Your task to perform on an android device: check the backup settings in the google photos Image 0: 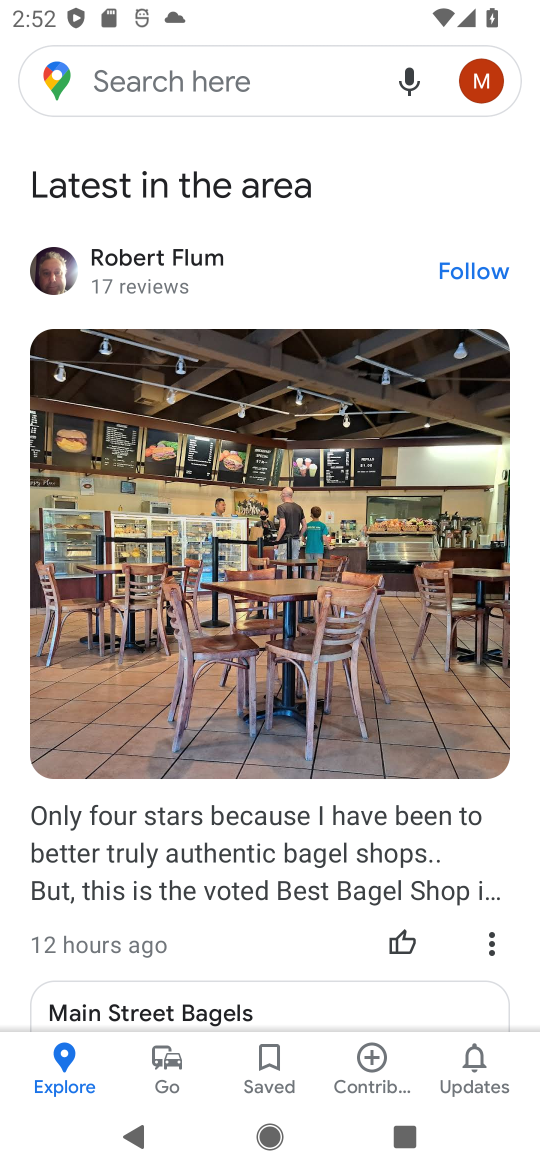
Step 0: press home button
Your task to perform on an android device: check the backup settings in the google photos Image 1: 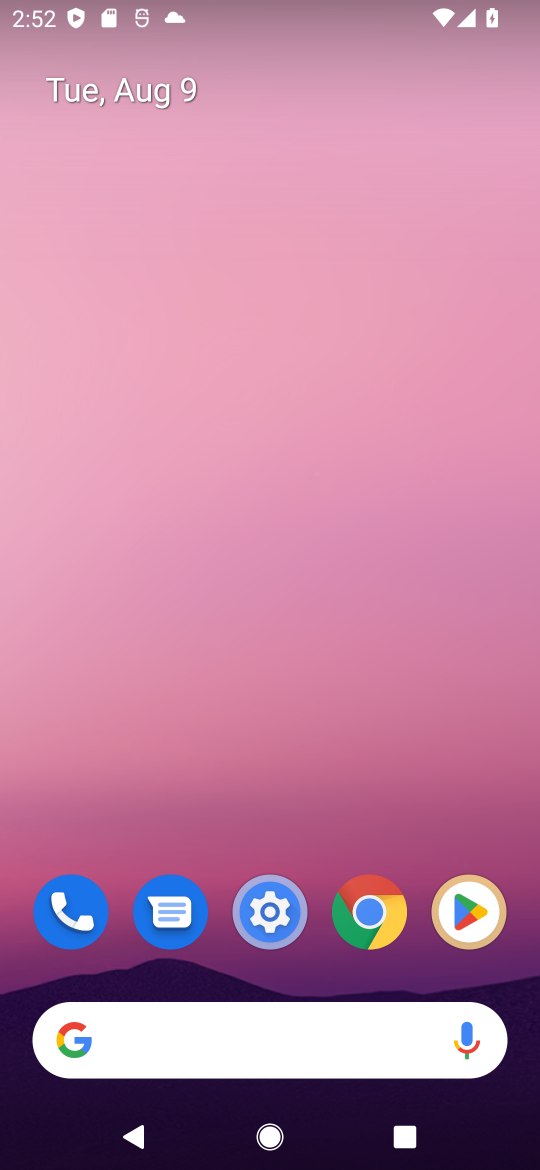
Step 1: drag from (299, 839) to (244, 219)
Your task to perform on an android device: check the backup settings in the google photos Image 2: 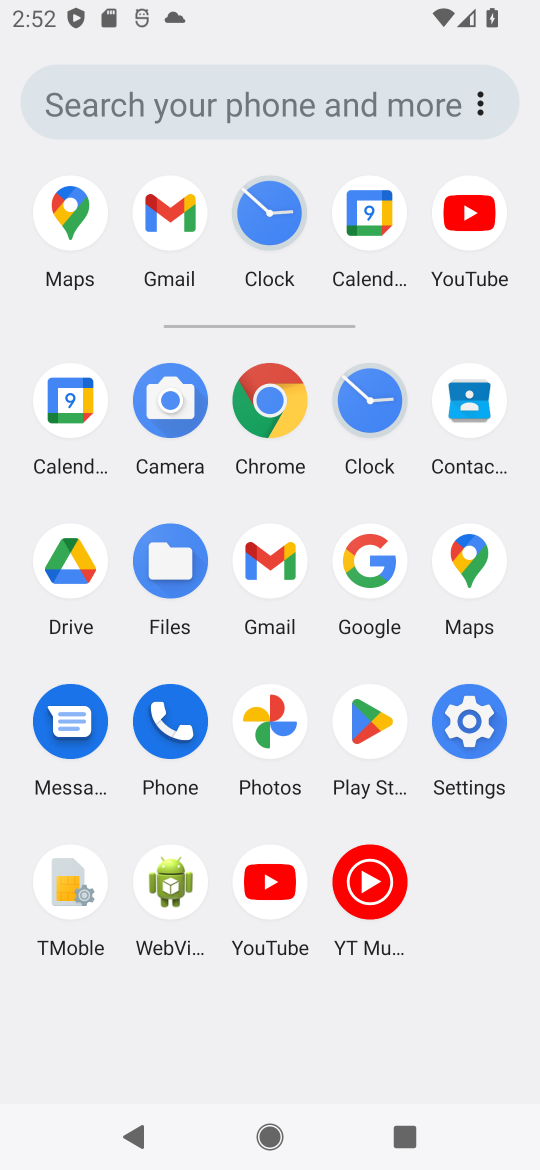
Step 2: click (273, 728)
Your task to perform on an android device: check the backup settings in the google photos Image 3: 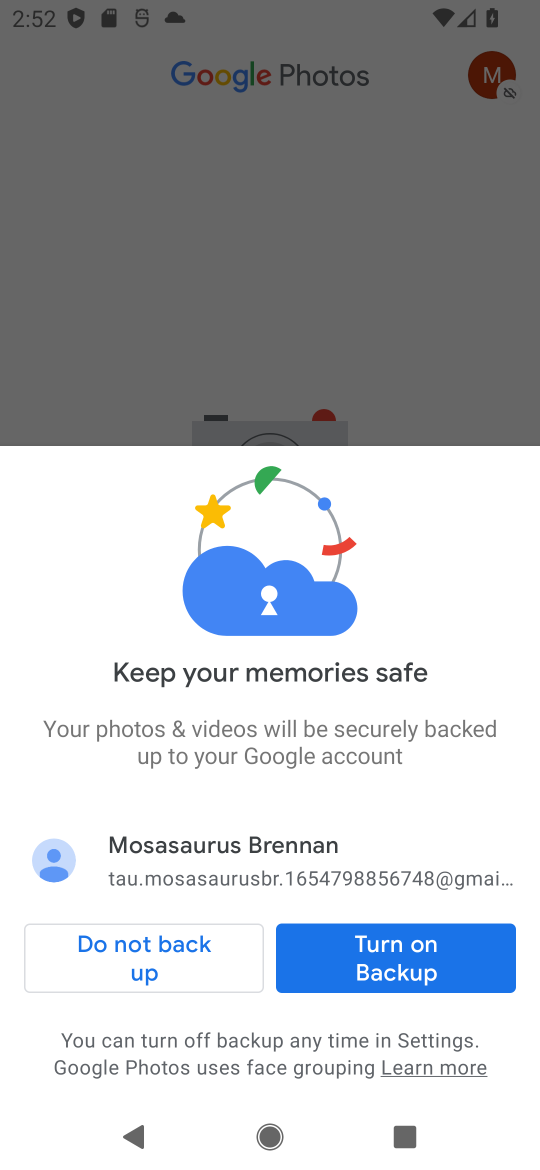
Step 3: click (360, 968)
Your task to perform on an android device: check the backup settings in the google photos Image 4: 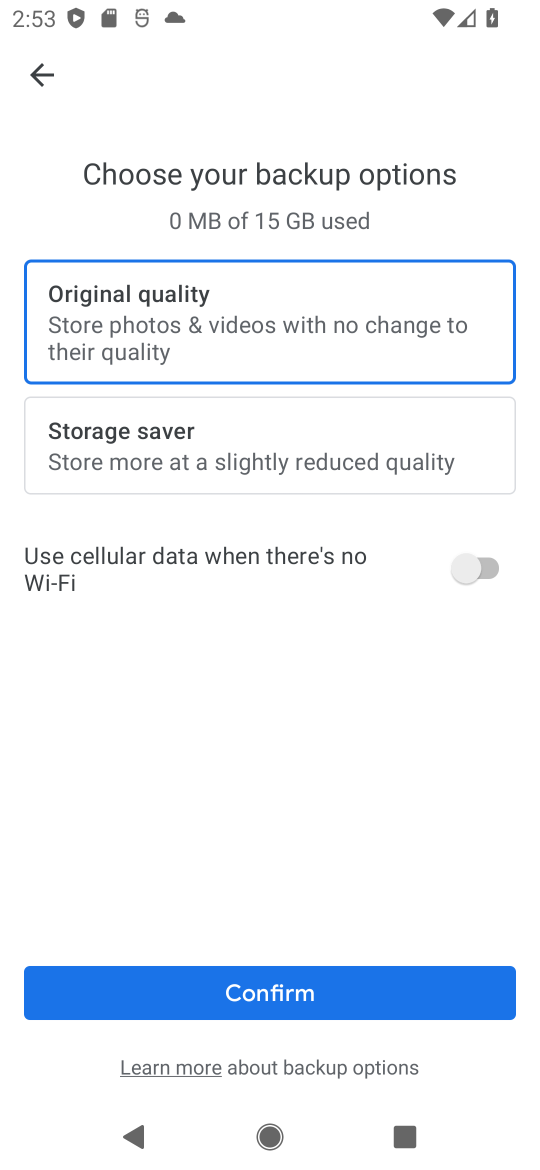
Step 4: click (33, 66)
Your task to perform on an android device: check the backup settings in the google photos Image 5: 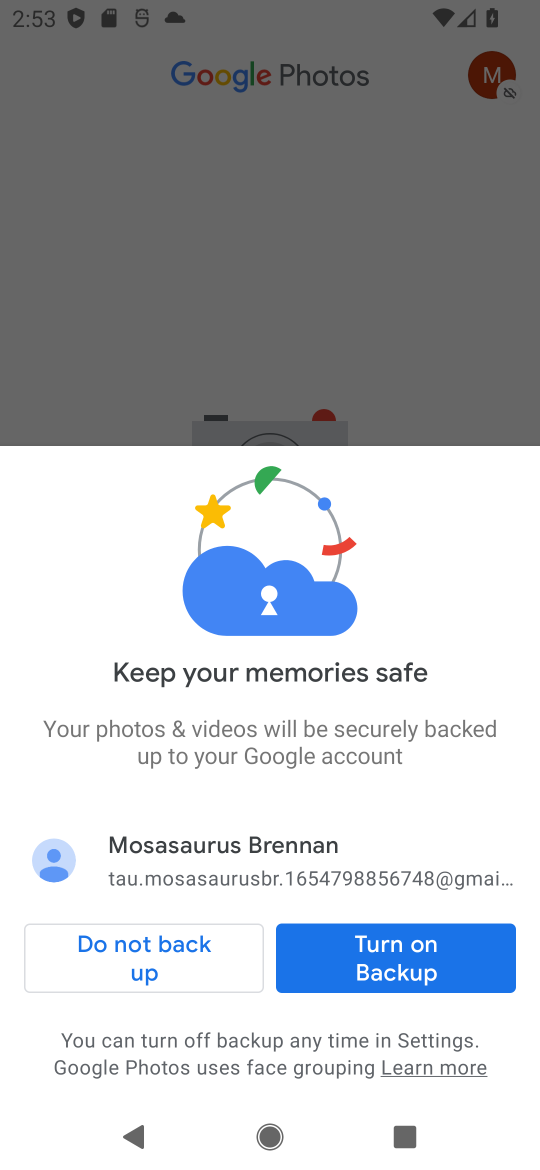
Step 5: click (175, 949)
Your task to perform on an android device: check the backup settings in the google photos Image 6: 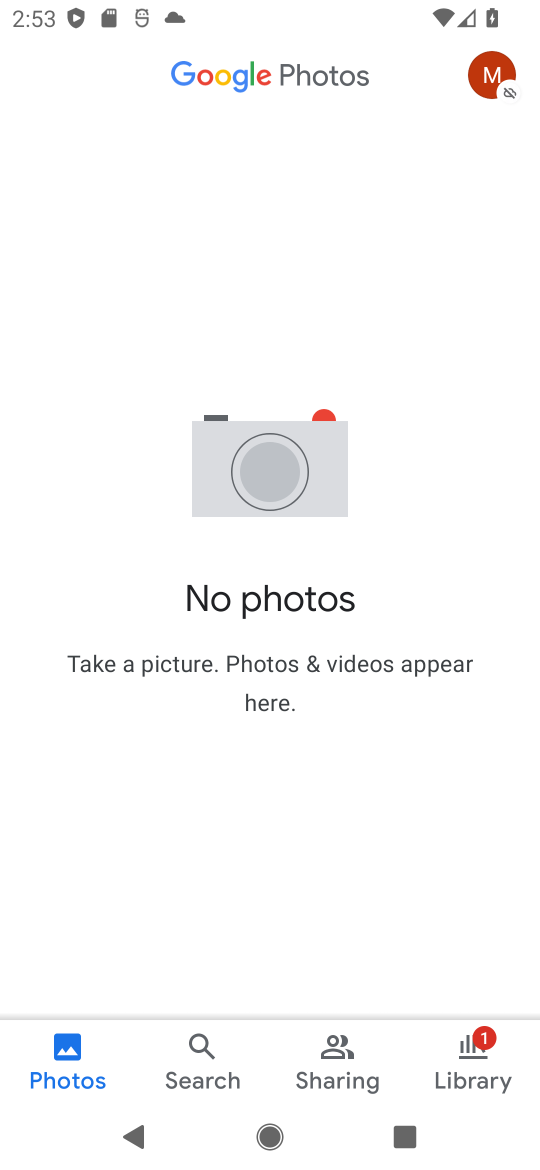
Step 6: click (498, 81)
Your task to perform on an android device: check the backup settings in the google photos Image 7: 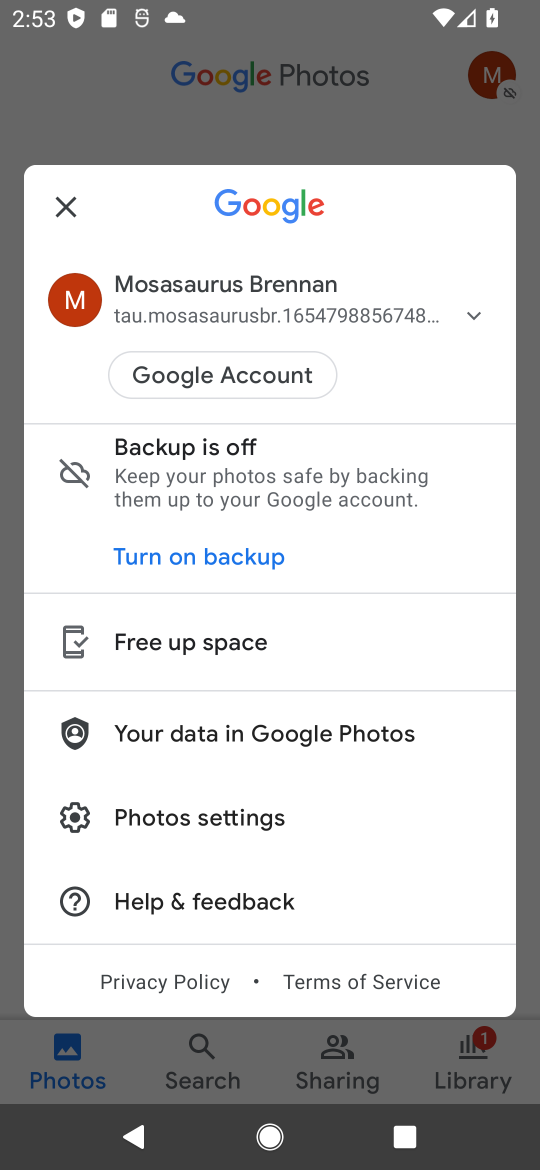
Step 7: click (176, 810)
Your task to perform on an android device: check the backup settings in the google photos Image 8: 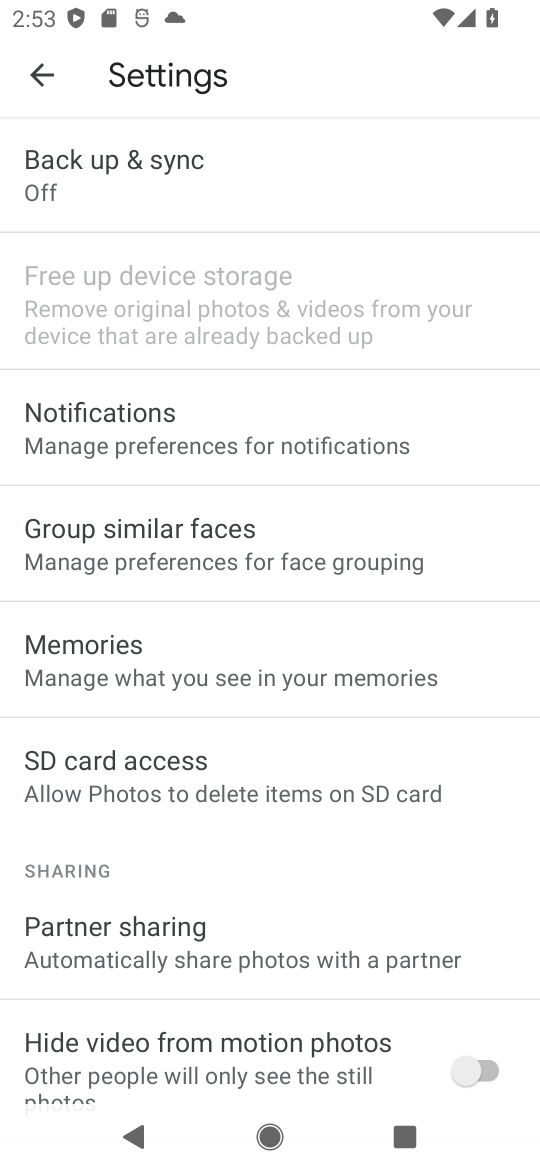
Step 8: click (119, 157)
Your task to perform on an android device: check the backup settings in the google photos Image 9: 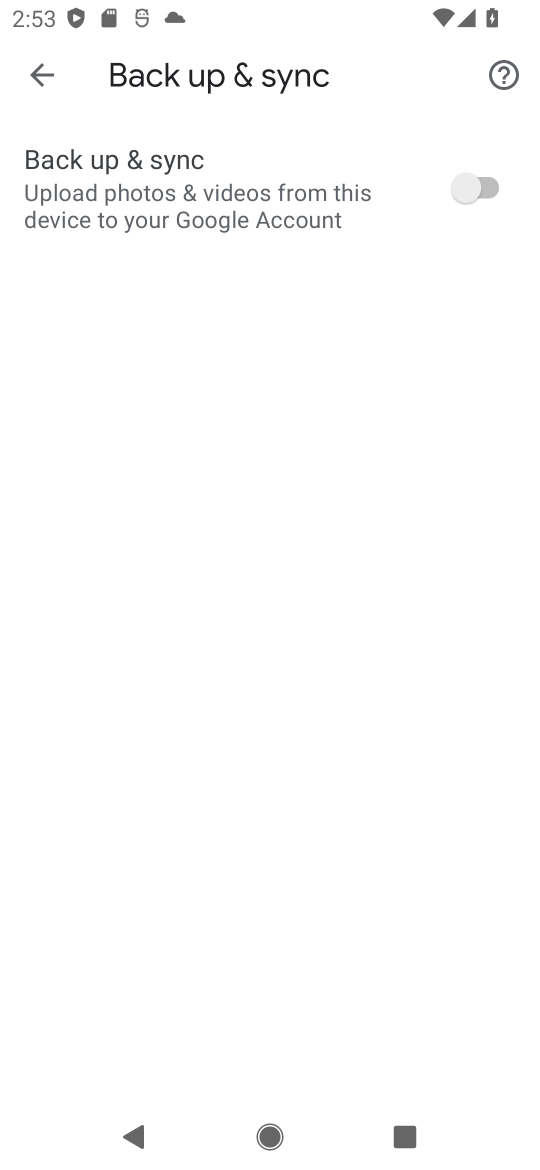
Step 9: click (140, 169)
Your task to perform on an android device: check the backup settings in the google photos Image 10: 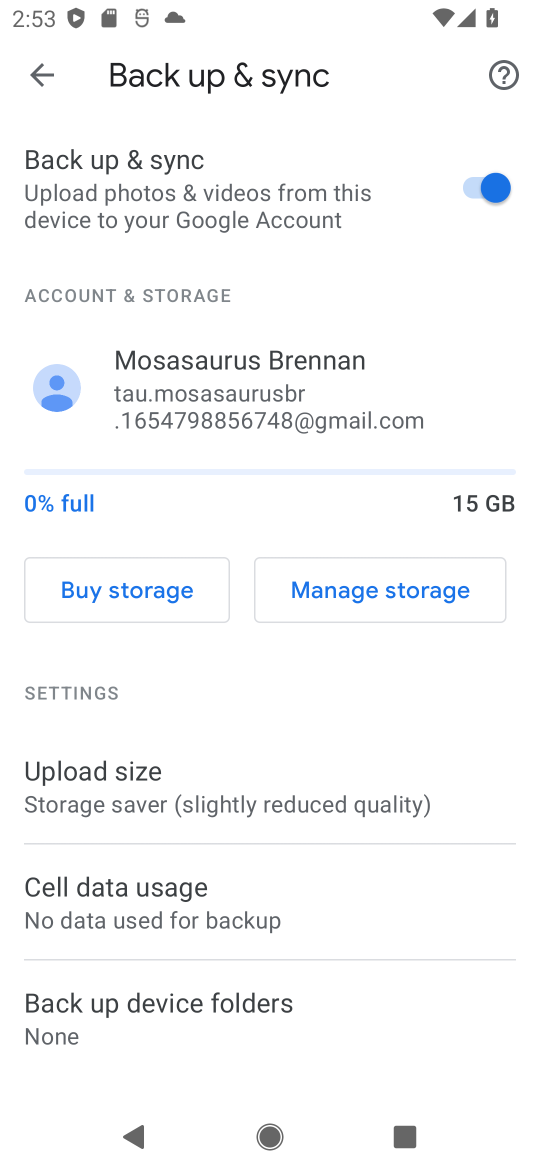
Step 10: task complete